Your task to perform on an android device: turn on data saver in the chrome app Image 0: 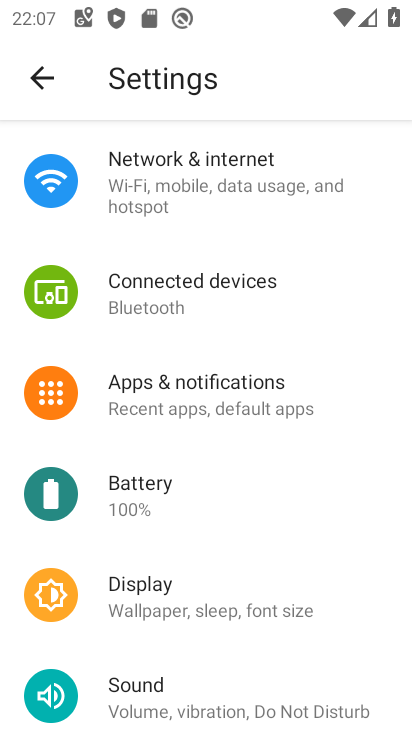
Step 0: press home button
Your task to perform on an android device: turn on data saver in the chrome app Image 1: 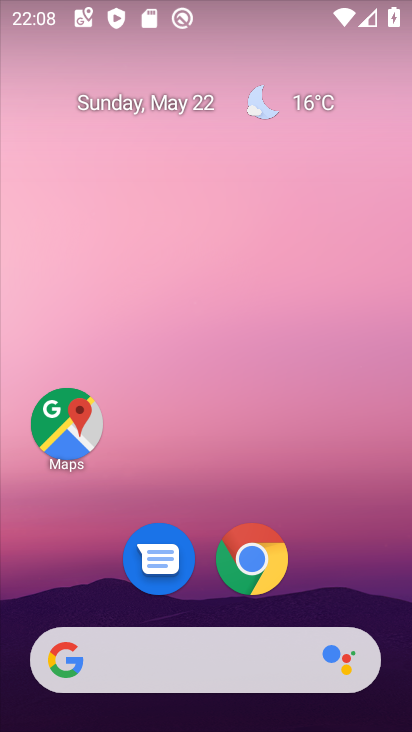
Step 1: drag from (236, 529) to (251, 190)
Your task to perform on an android device: turn on data saver in the chrome app Image 2: 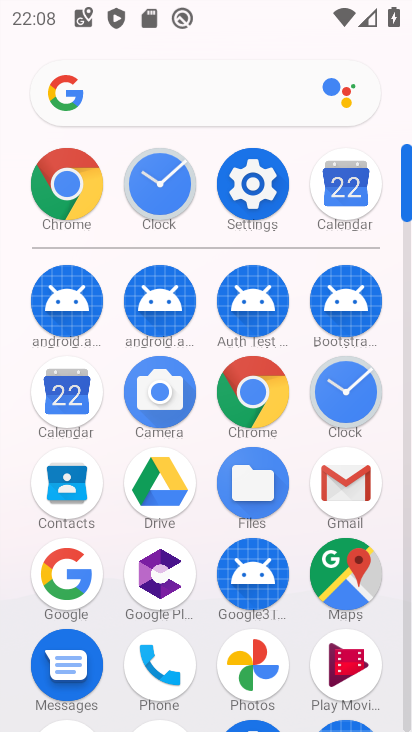
Step 2: click (264, 194)
Your task to perform on an android device: turn on data saver in the chrome app Image 3: 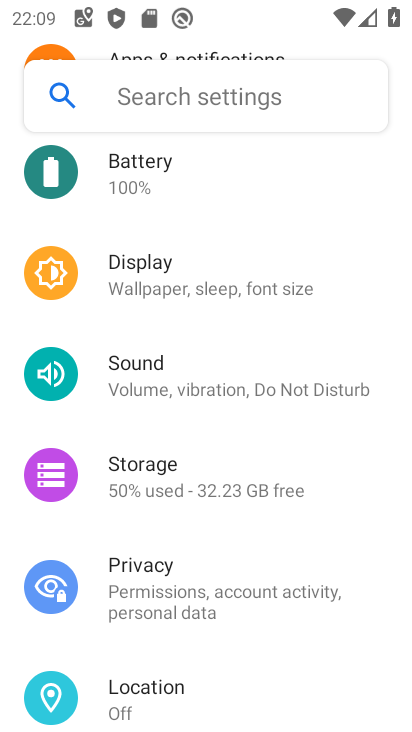
Step 3: press home button
Your task to perform on an android device: turn on data saver in the chrome app Image 4: 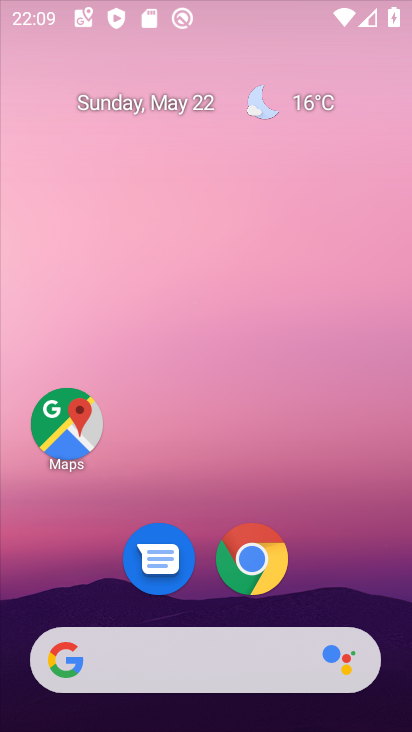
Step 4: drag from (256, 635) to (289, 179)
Your task to perform on an android device: turn on data saver in the chrome app Image 5: 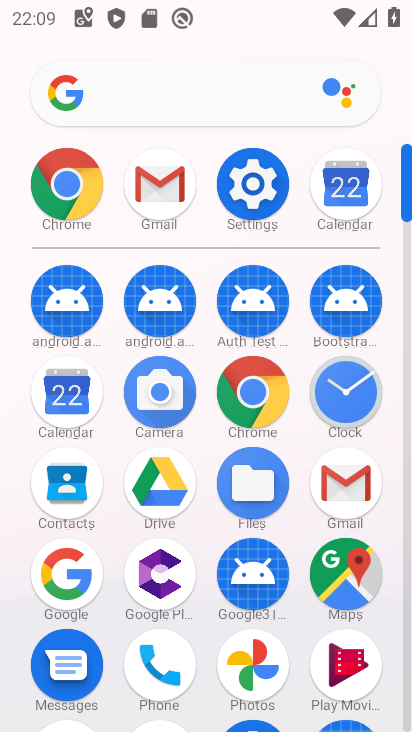
Step 5: click (76, 184)
Your task to perform on an android device: turn on data saver in the chrome app Image 6: 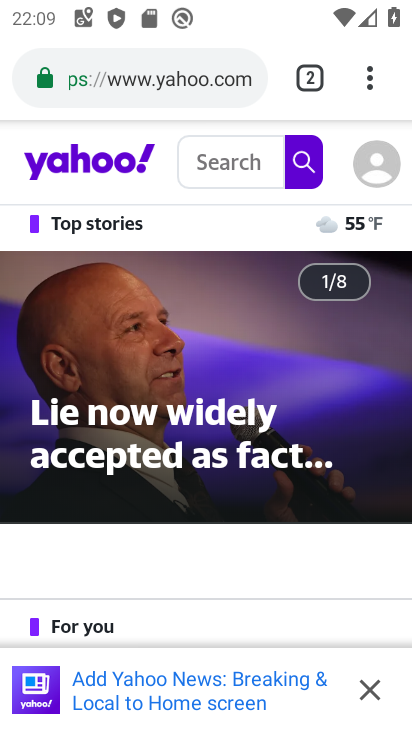
Step 6: click (368, 87)
Your task to perform on an android device: turn on data saver in the chrome app Image 7: 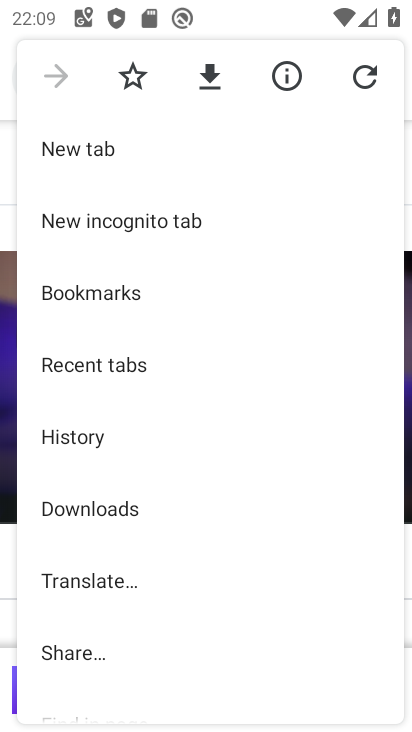
Step 7: drag from (226, 614) to (245, 208)
Your task to perform on an android device: turn on data saver in the chrome app Image 8: 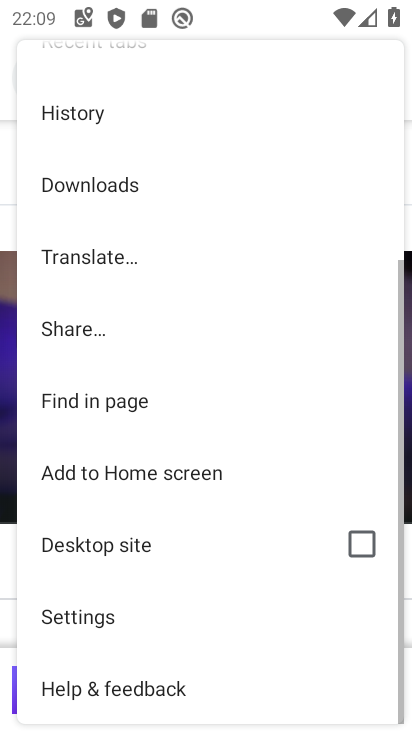
Step 8: click (122, 617)
Your task to perform on an android device: turn on data saver in the chrome app Image 9: 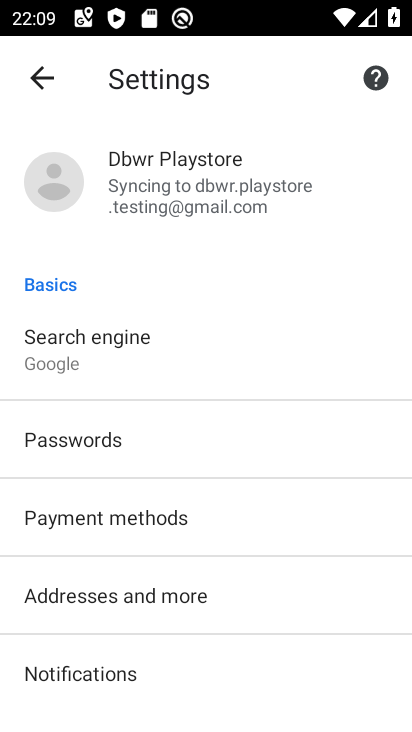
Step 9: drag from (126, 622) to (148, 467)
Your task to perform on an android device: turn on data saver in the chrome app Image 10: 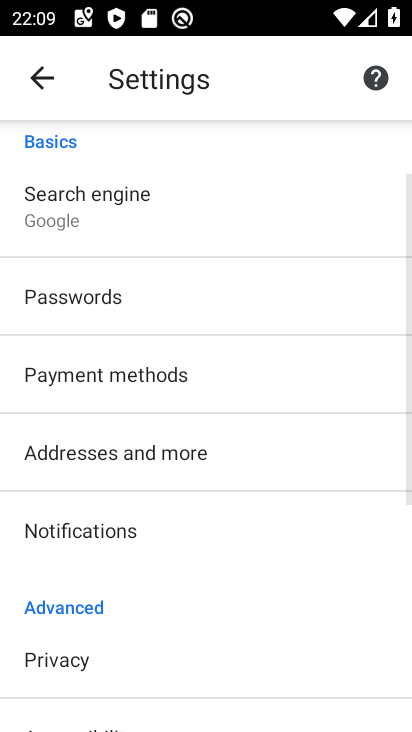
Step 10: drag from (160, 660) to (171, 325)
Your task to perform on an android device: turn on data saver in the chrome app Image 11: 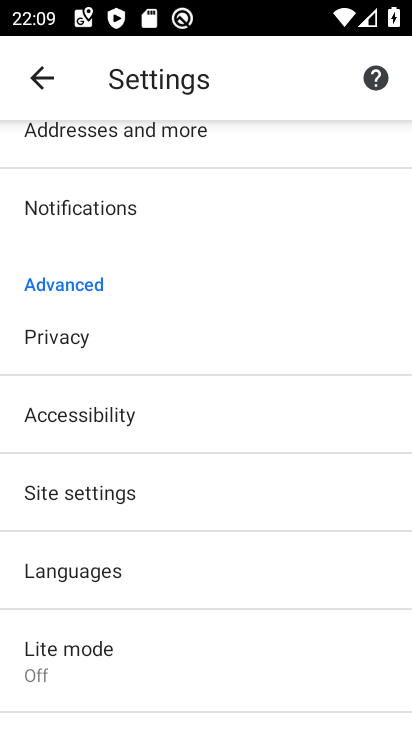
Step 11: click (111, 651)
Your task to perform on an android device: turn on data saver in the chrome app Image 12: 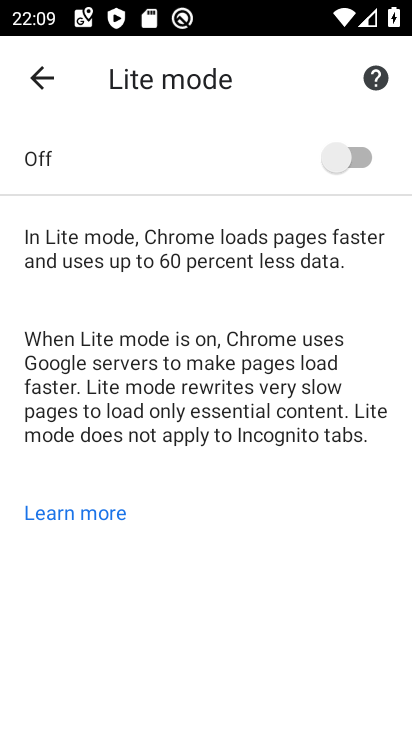
Step 12: click (370, 154)
Your task to perform on an android device: turn on data saver in the chrome app Image 13: 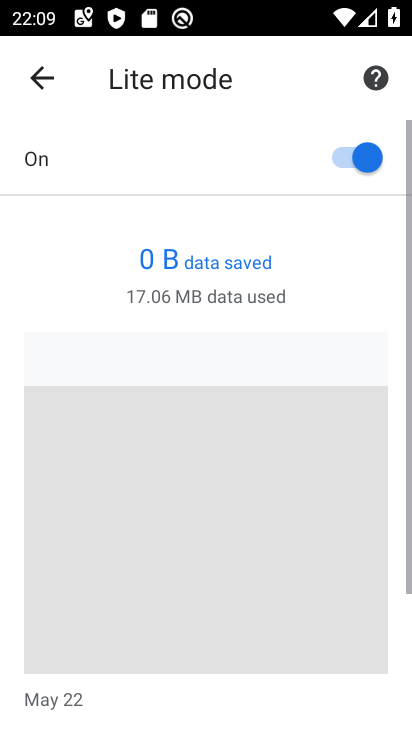
Step 13: task complete